Your task to perform on an android device: turn notification dots off Image 0: 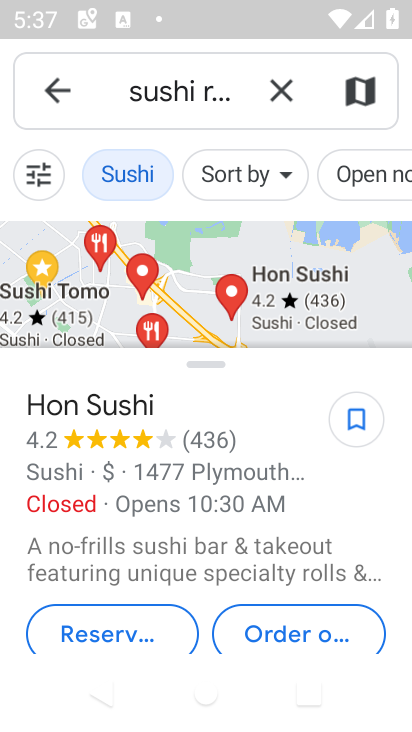
Step 0: press home button
Your task to perform on an android device: turn notification dots off Image 1: 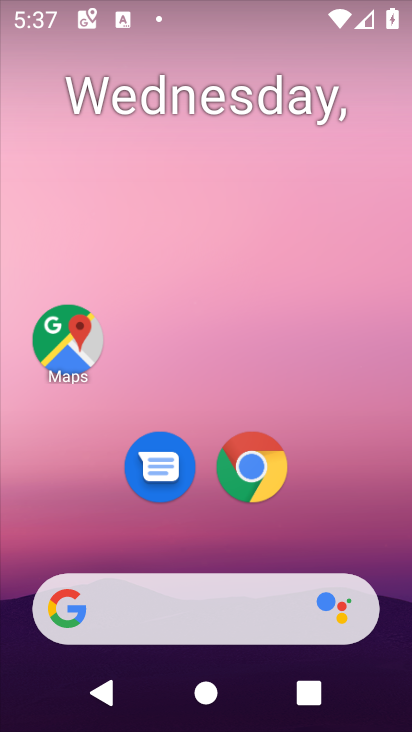
Step 1: drag from (378, 529) to (216, 43)
Your task to perform on an android device: turn notification dots off Image 2: 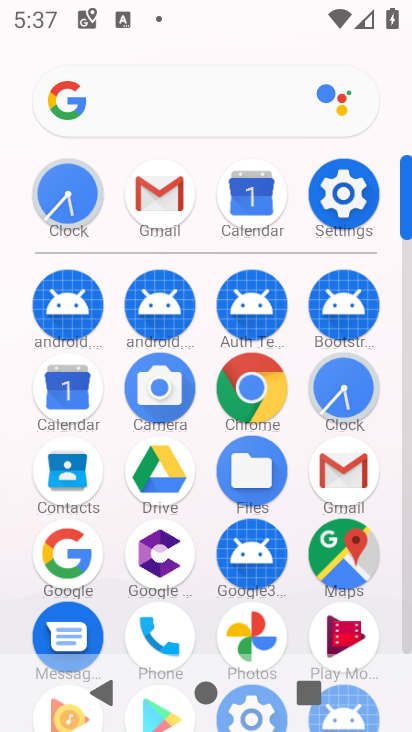
Step 2: click (341, 193)
Your task to perform on an android device: turn notification dots off Image 3: 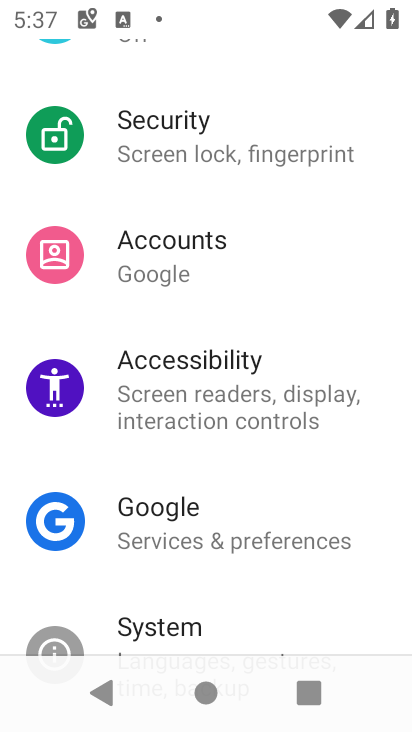
Step 3: drag from (237, 516) to (216, 100)
Your task to perform on an android device: turn notification dots off Image 4: 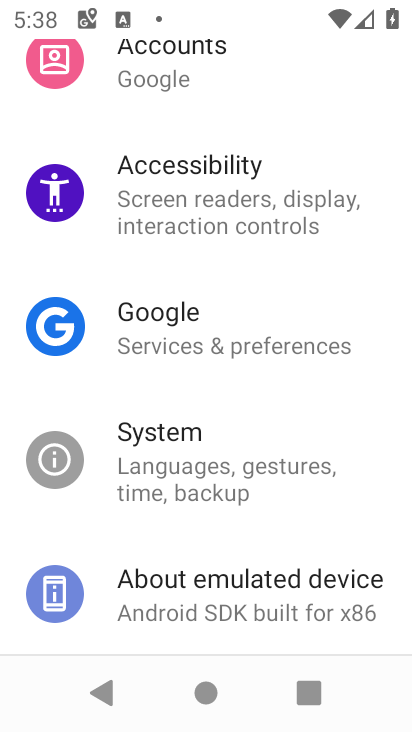
Step 4: drag from (251, 146) to (268, 725)
Your task to perform on an android device: turn notification dots off Image 5: 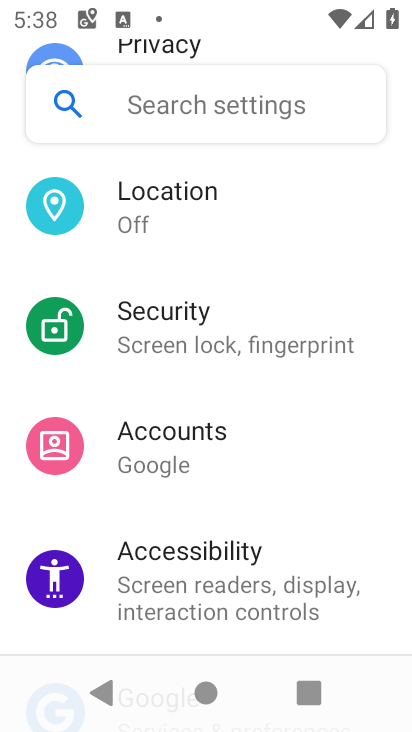
Step 5: drag from (216, 163) to (250, 703)
Your task to perform on an android device: turn notification dots off Image 6: 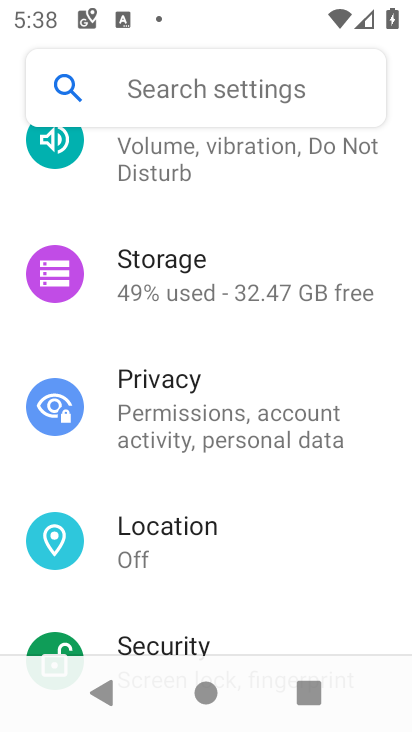
Step 6: drag from (219, 329) to (245, 700)
Your task to perform on an android device: turn notification dots off Image 7: 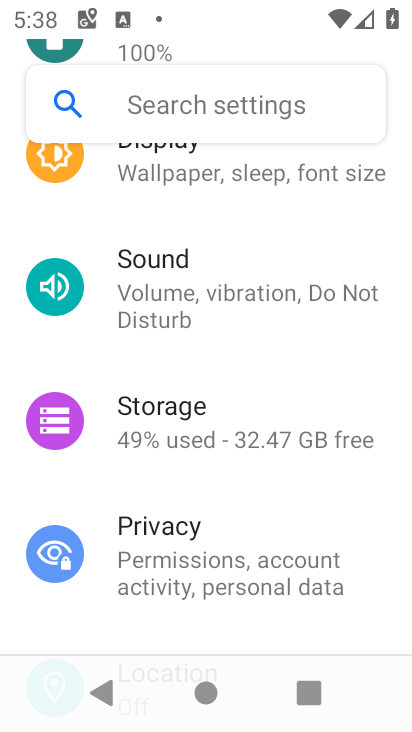
Step 7: drag from (207, 198) to (225, 682)
Your task to perform on an android device: turn notification dots off Image 8: 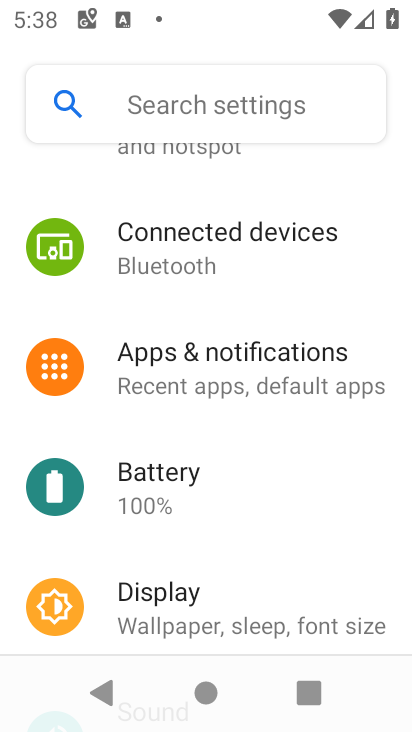
Step 8: click (228, 367)
Your task to perform on an android device: turn notification dots off Image 9: 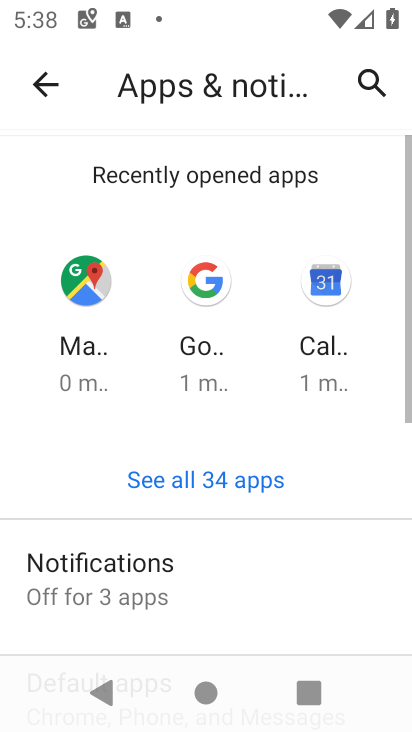
Step 9: click (167, 595)
Your task to perform on an android device: turn notification dots off Image 10: 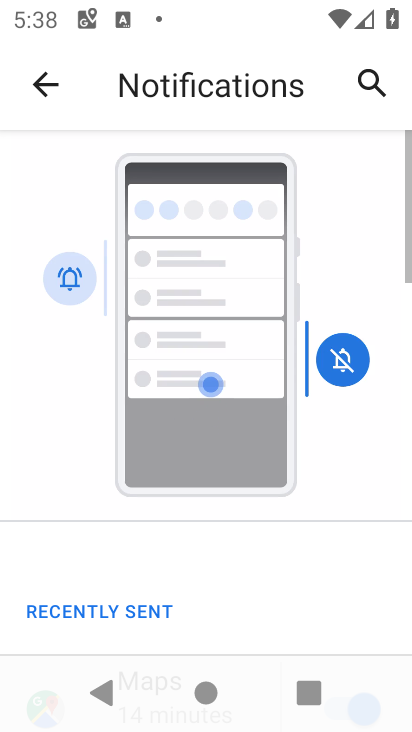
Step 10: drag from (222, 534) to (222, 79)
Your task to perform on an android device: turn notification dots off Image 11: 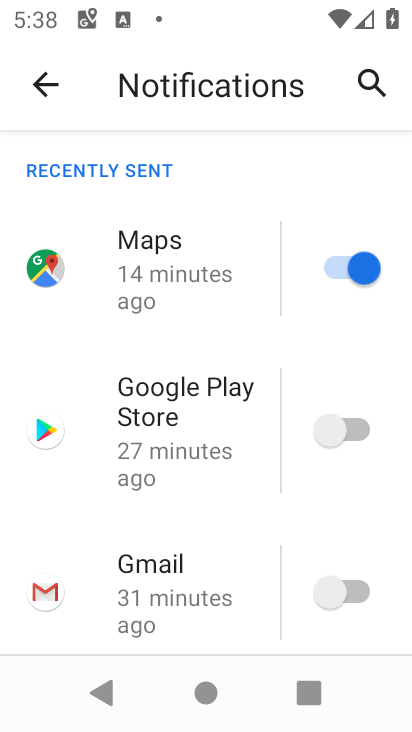
Step 11: drag from (192, 525) to (181, 51)
Your task to perform on an android device: turn notification dots off Image 12: 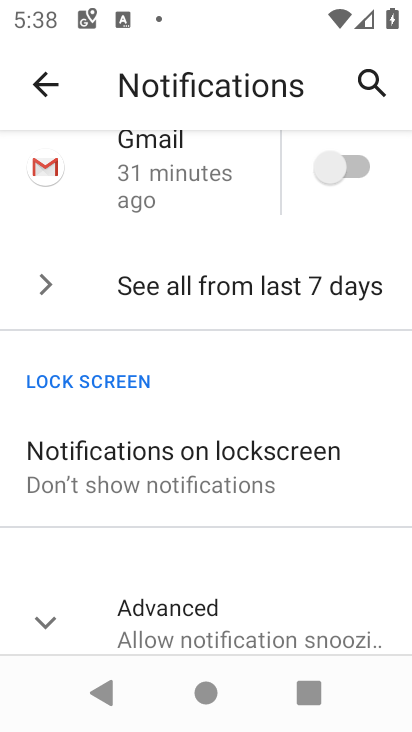
Step 12: drag from (233, 501) to (224, 198)
Your task to perform on an android device: turn notification dots off Image 13: 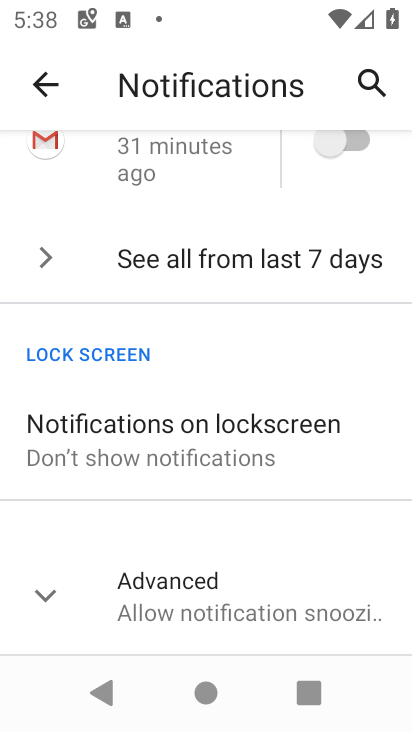
Step 13: click (234, 597)
Your task to perform on an android device: turn notification dots off Image 14: 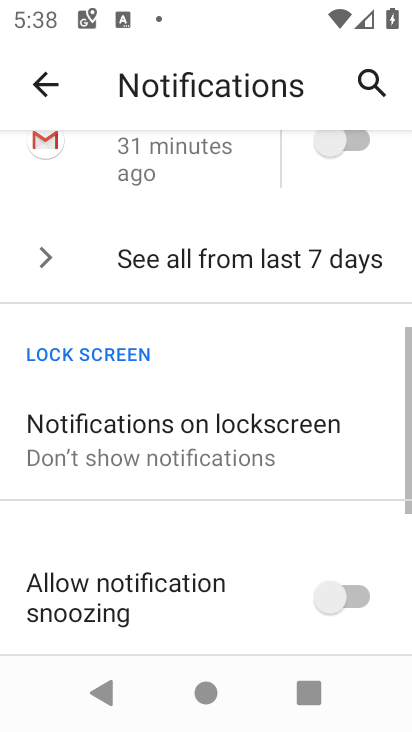
Step 14: drag from (263, 495) to (237, 55)
Your task to perform on an android device: turn notification dots off Image 15: 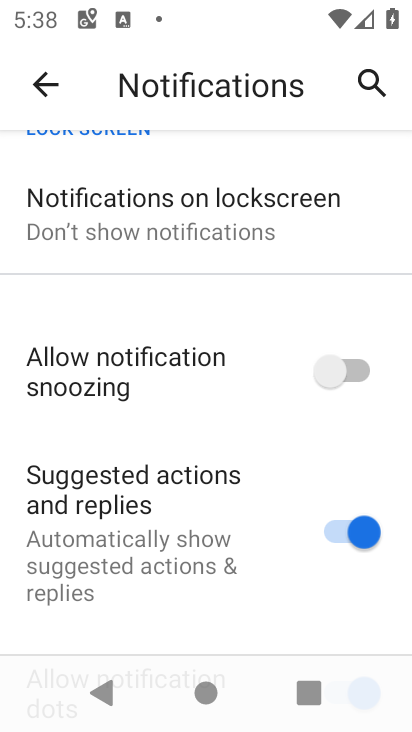
Step 15: drag from (196, 570) to (188, 284)
Your task to perform on an android device: turn notification dots off Image 16: 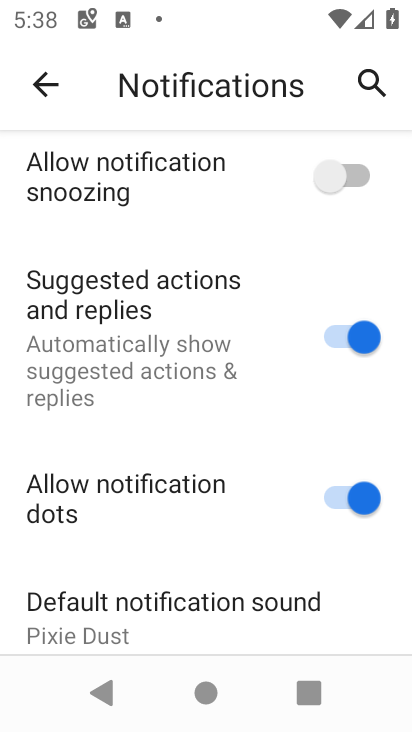
Step 16: click (354, 490)
Your task to perform on an android device: turn notification dots off Image 17: 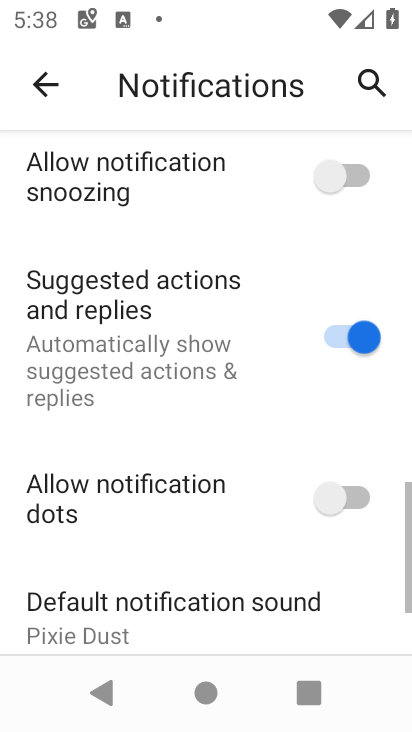
Step 17: task complete